Your task to perform on an android device: Go to Maps Image 0: 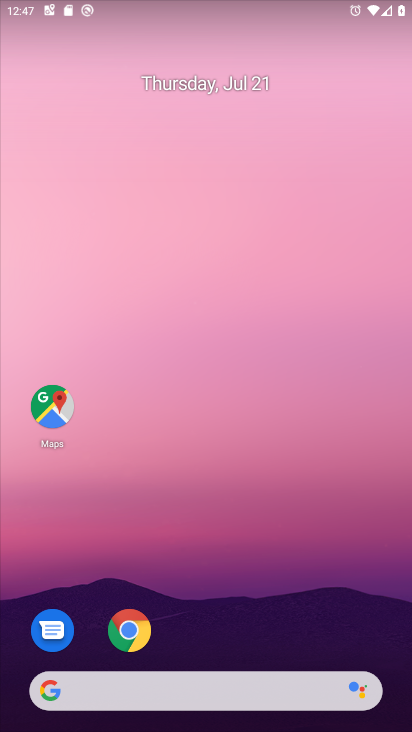
Step 0: drag from (198, 642) to (410, 175)
Your task to perform on an android device: Go to Maps Image 1: 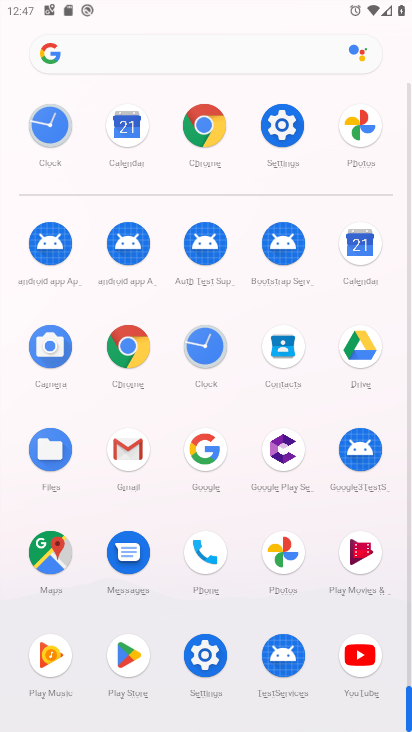
Step 1: click (44, 554)
Your task to perform on an android device: Go to Maps Image 2: 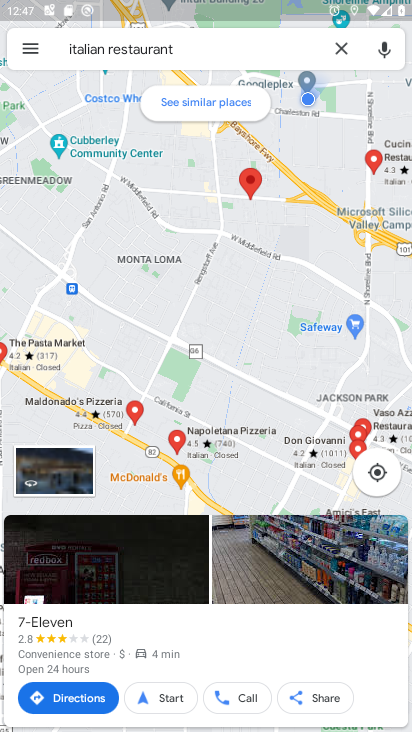
Step 2: task complete